Your task to perform on an android device: Go to CNN.com Image 0: 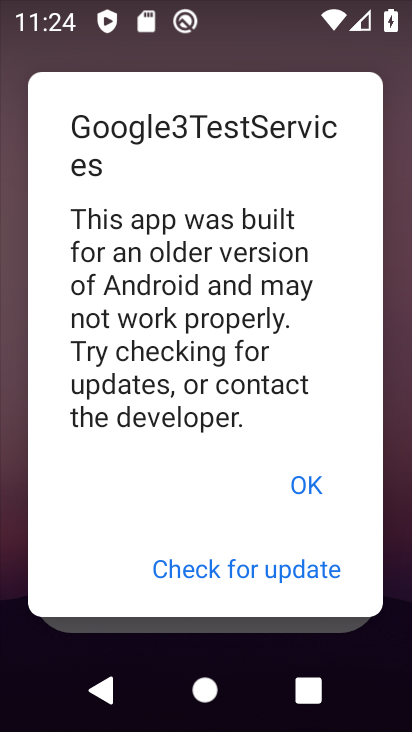
Step 0: press home button
Your task to perform on an android device: Go to CNN.com Image 1: 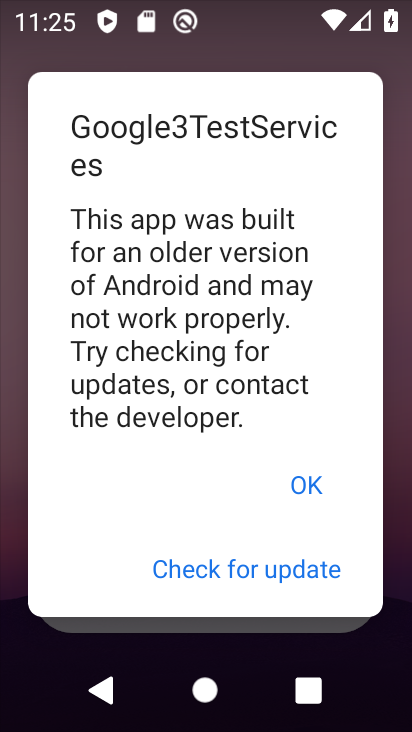
Step 1: click (309, 490)
Your task to perform on an android device: Go to CNN.com Image 2: 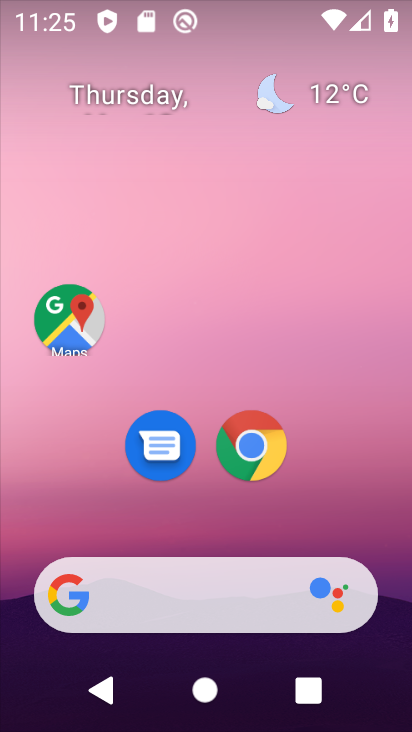
Step 2: click (242, 441)
Your task to perform on an android device: Go to CNN.com Image 3: 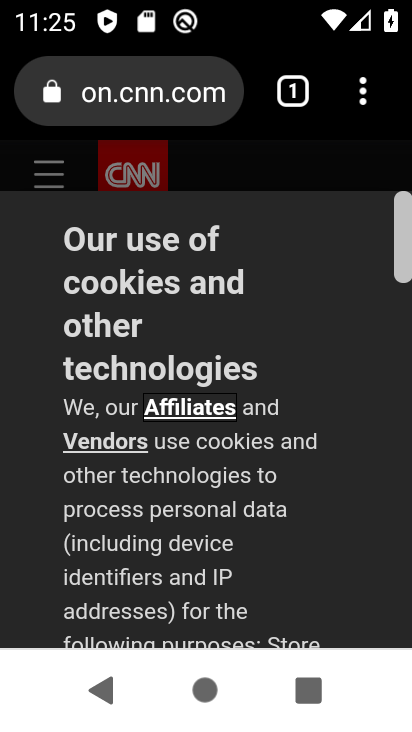
Step 3: task complete